Your task to perform on an android device: toggle wifi Image 0: 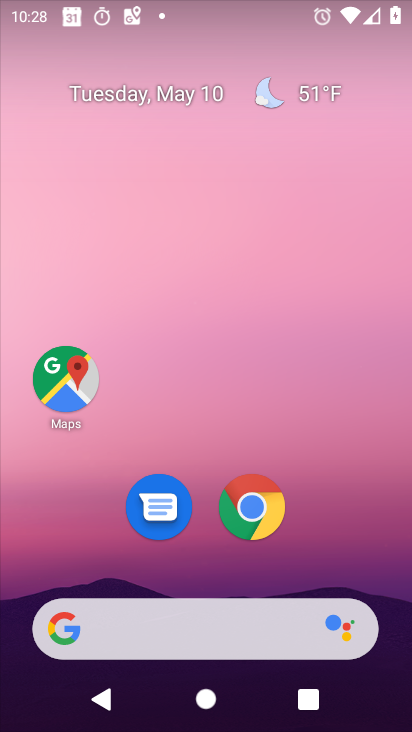
Step 0: drag from (239, 14) to (266, 593)
Your task to perform on an android device: toggle wifi Image 1: 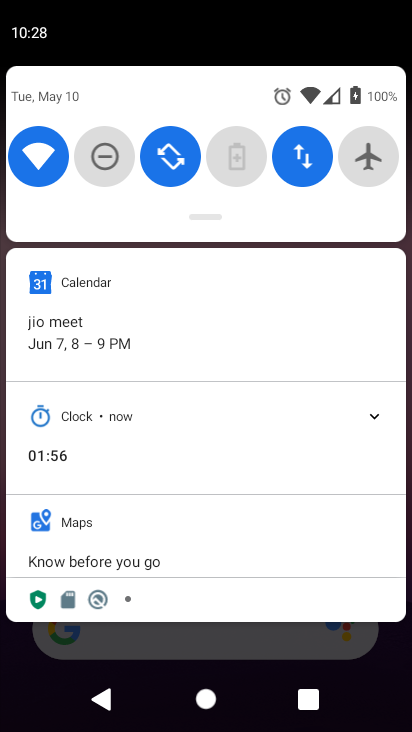
Step 1: click (39, 165)
Your task to perform on an android device: toggle wifi Image 2: 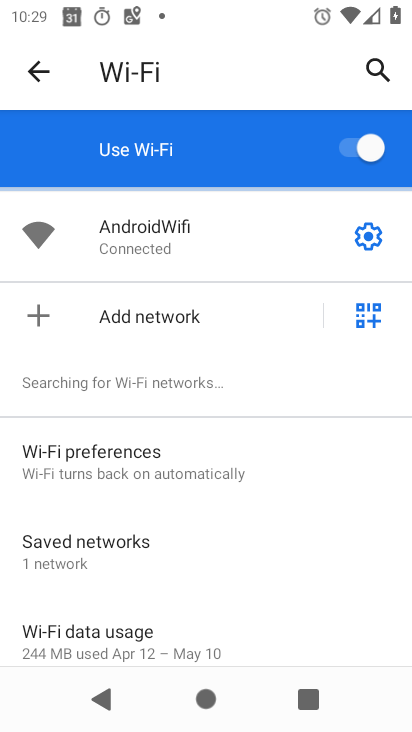
Step 2: click (368, 149)
Your task to perform on an android device: toggle wifi Image 3: 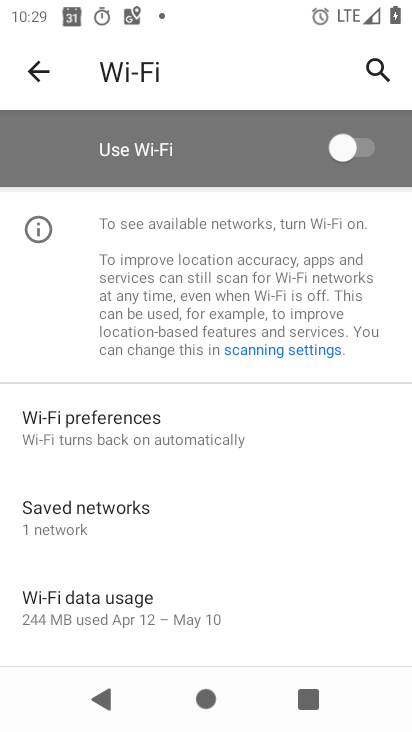
Step 3: click (357, 149)
Your task to perform on an android device: toggle wifi Image 4: 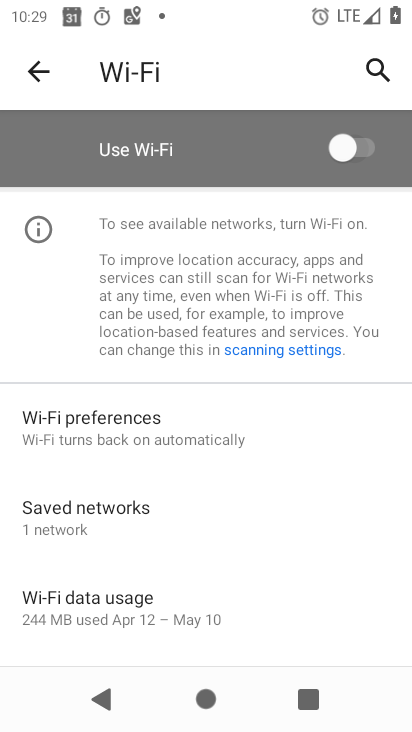
Step 4: click (357, 149)
Your task to perform on an android device: toggle wifi Image 5: 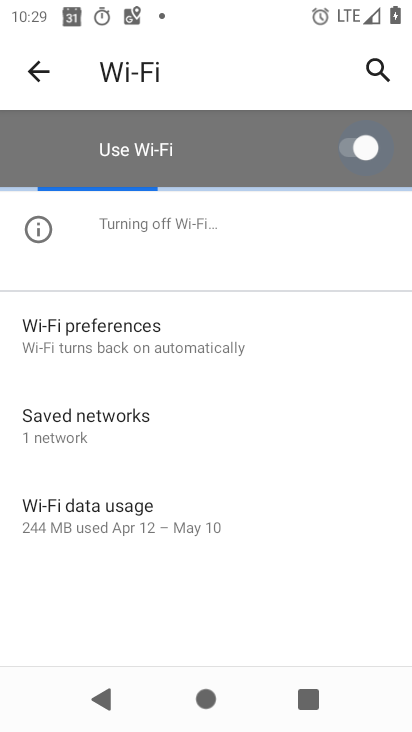
Step 5: click (357, 149)
Your task to perform on an android device: toggle wifi Image 6: 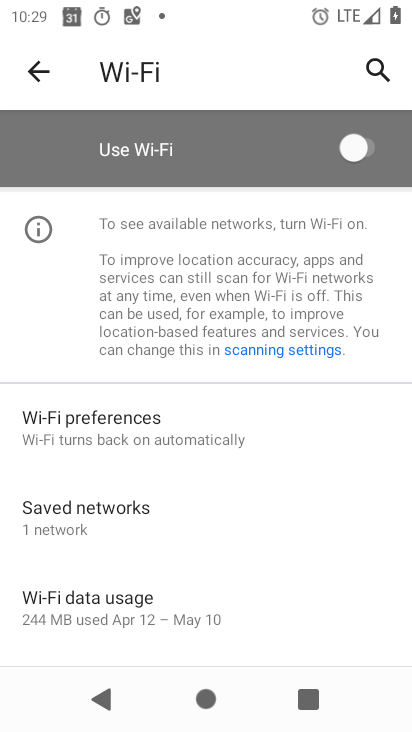
Step 6: click (357, 149)
Your task to perform on an android device: toggle wifi Image 7: 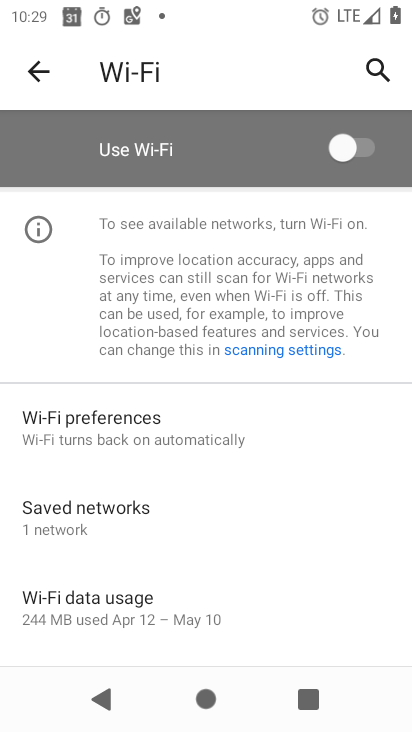
Step 7: click (357, 149)
Your task to perform on an android device: toggle wifi Image 8: 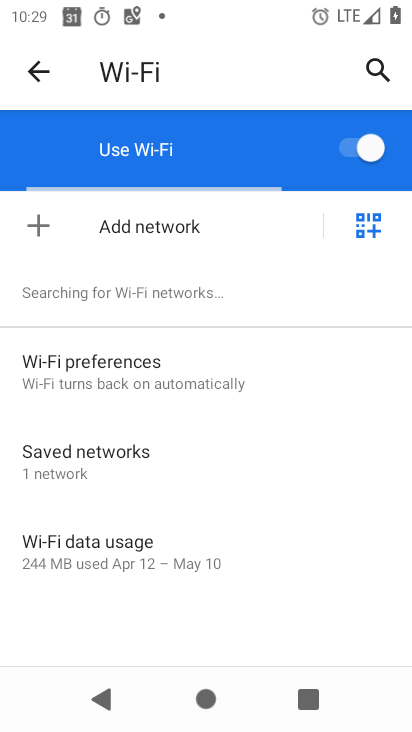
Step 8: task complete